Your task to perform on an android device: What's the weather today? Image 0: 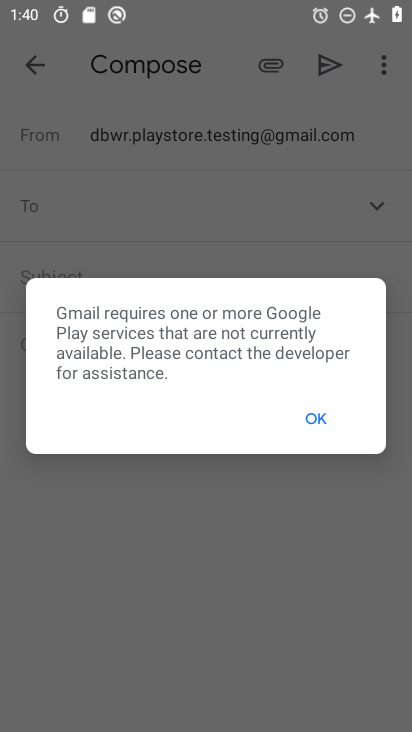
Step 0: press home button
Your task to perform on an android device: What's the weather today? Image 1: 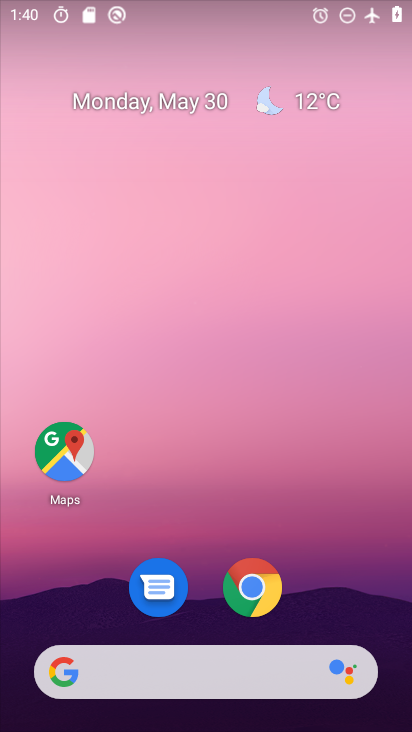
Step 1: click (327, 105)
Your task to perform on an android device: What's the weather today? Image 2: 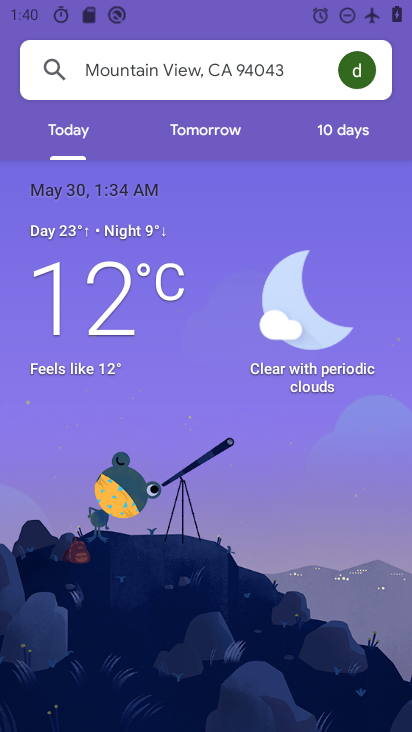
Step 2: task complete